Your task to perform on an android device: turn on priority inbox in the gmail app Image 0: 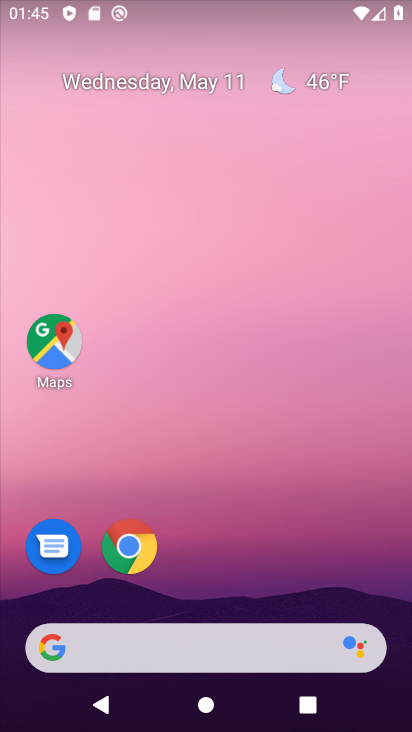
Step 0: drag from (212, 594) to (274, 32)
Your task to perform on an android device: turn on priority inbox in the gmail app Image 1: 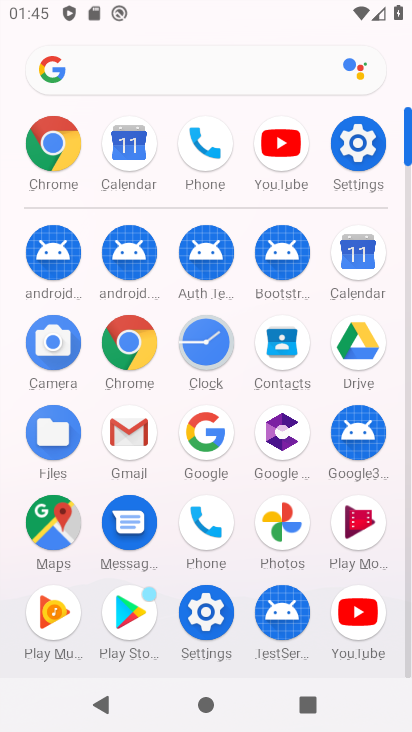
Step 1: click (127, 431)
Your task to perform on an android device: turn on priority inbox in the gmail app Image 2: 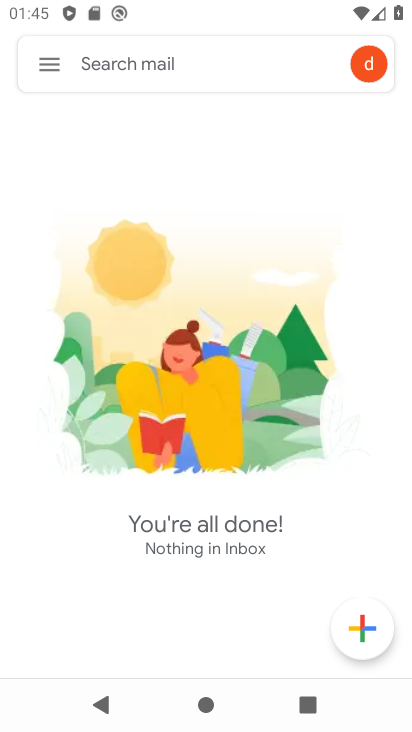
Step 2: drag from (190, 549) to (248, 191)
Your task to perform on an android device: turn on priority inbox in the gmail app Image 3: 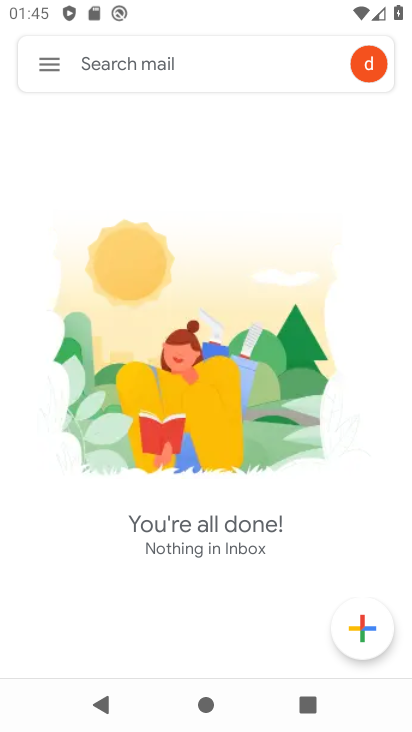
Step 3: click (45, 66)
Your task to perform on an android device: turn on priority inbox in the gmail app Image 4: 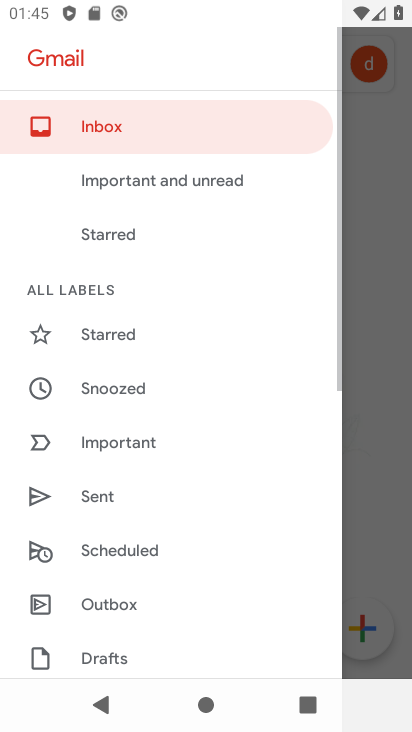
Step 4: drag from (148, 666) to (268, 146)
Your task to perform on an android device: turn on priority inbox in the gmail app Image 5: 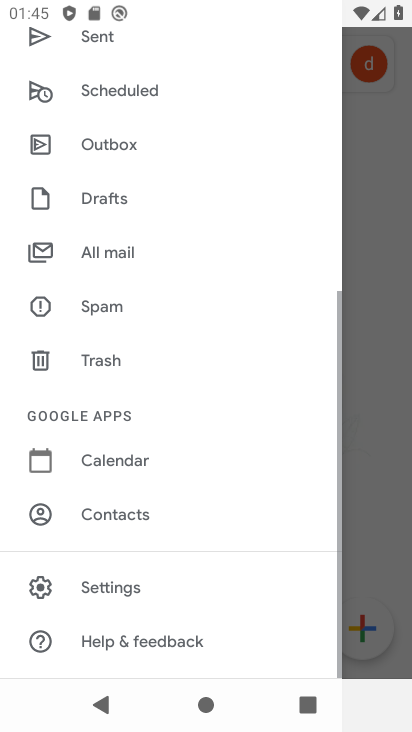
Step 5: click (130, 589)
Your task to perform on an android device: turn on priority inbox in the gmail app Image 6: 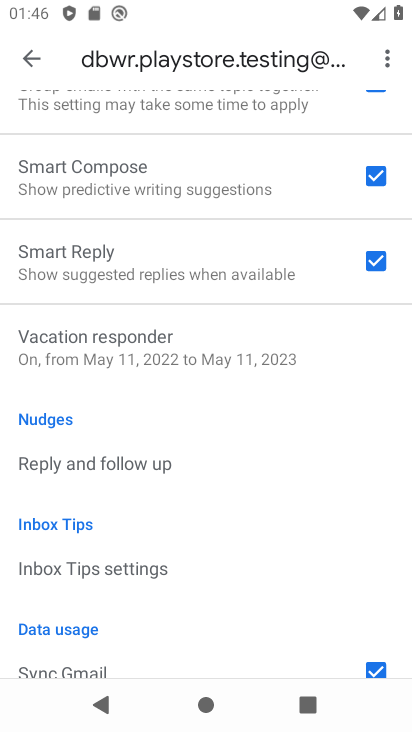
Step 6: drag from (215, 609) to (362, 113)
Your task to perform on an android device: turn on priority inbox in the gmail app Image 7: 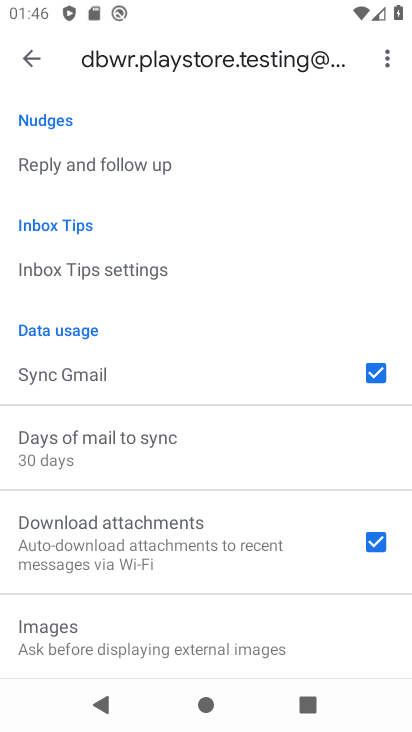
Step 7: drag from (214, 334) to (214, 254)
Your task to perform on an android device: turn on priority inbox in the gmail app Image 8: 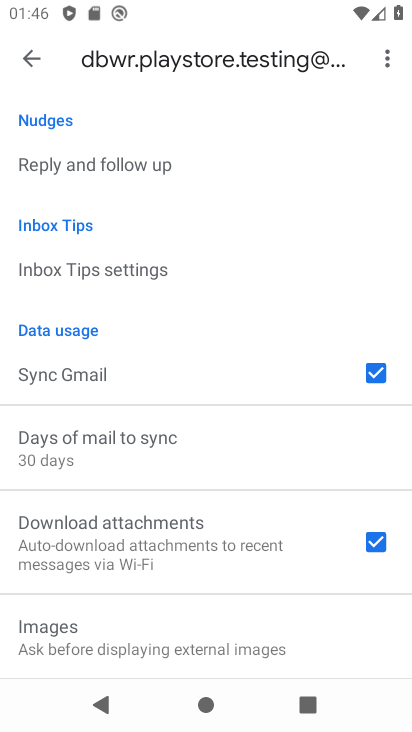
Step 8: drag from (242, 205) to (283, 658)
Your task to perform on an android device: turn on priority inbox in the gmail app Image 9: 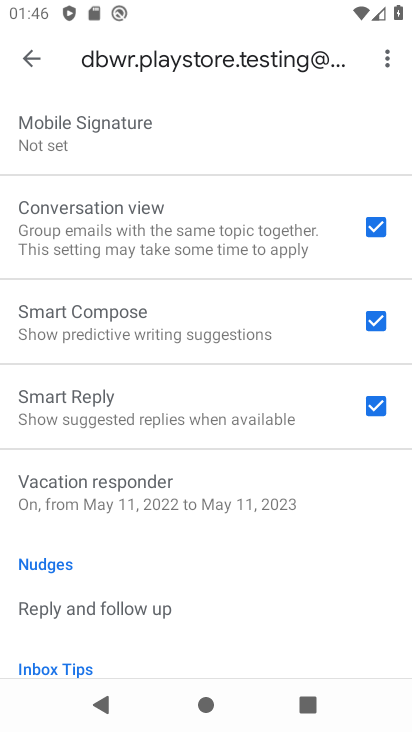
Step 9: drag from (173, 184) to (290, 708)
Your task to perform on an android device: turn on priority inbox in the gmail app Image 10: 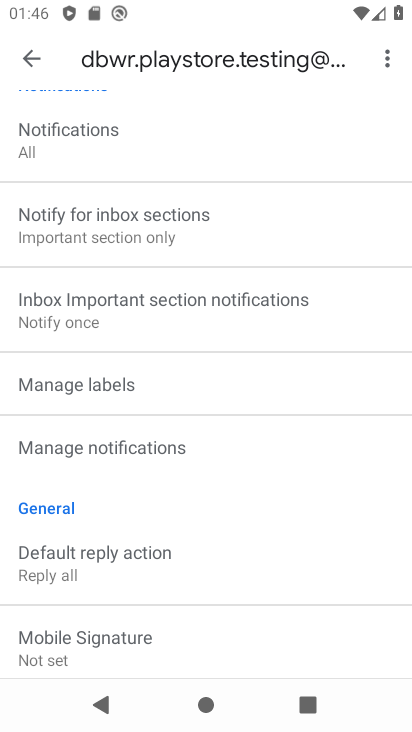
Step 10: drag from (131, 197) to (370, 589)
Your task to perform on an android device: turn on priority inbox in the gmail app Image 11: 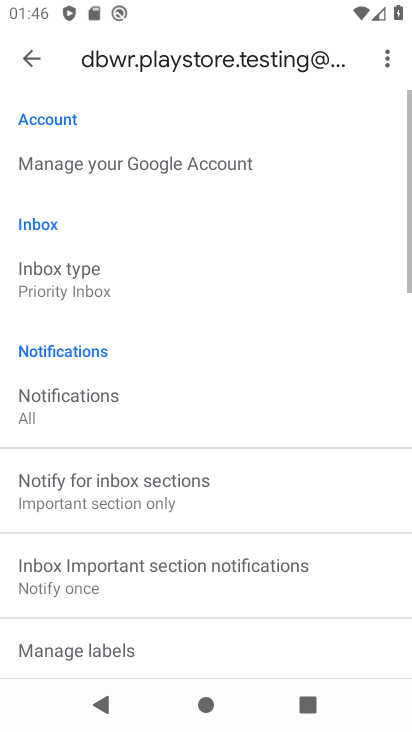
Step 11: click (148, 276)
Your task to perform on an android device: turn on priority inbox in the gmail app Image 12: 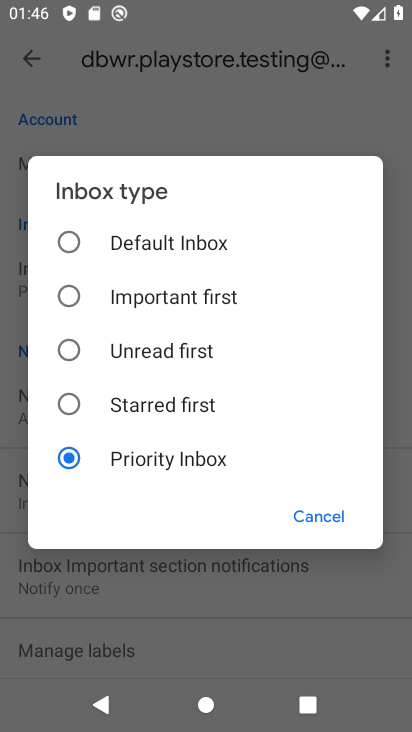
Step 12: click (113, 448)
Your task to perform on an android device: turn on priority inbox in the gmail app Image 13: 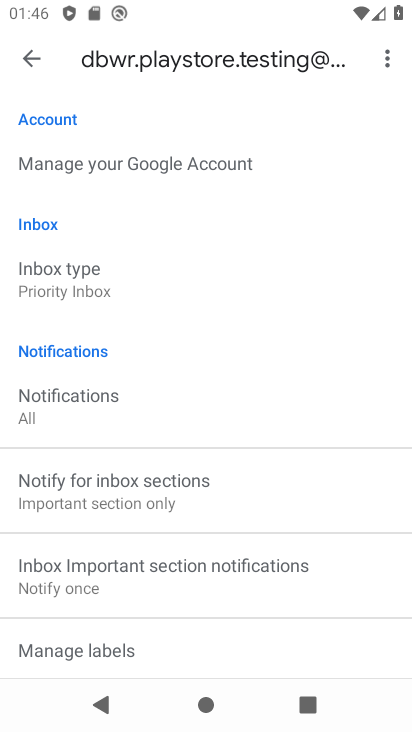
Step 13: task complete